Your task to perform on an android device: turn off translation in the chrome app Image 0: 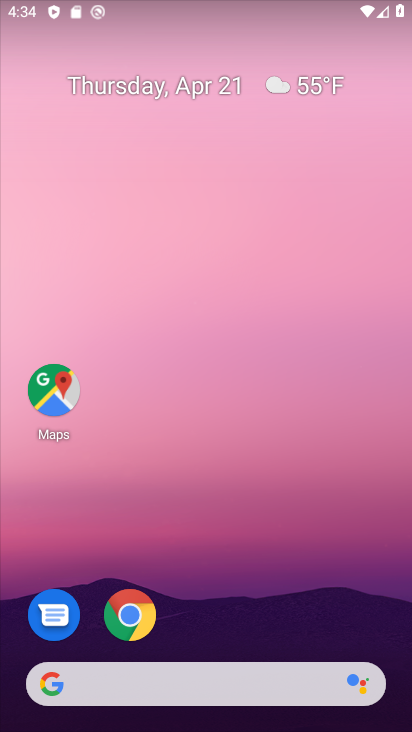
Step 0: drag from (295, 544) to (253, 17)
Your task to perform on an android device: turn off translation in the chrome app Image 1: 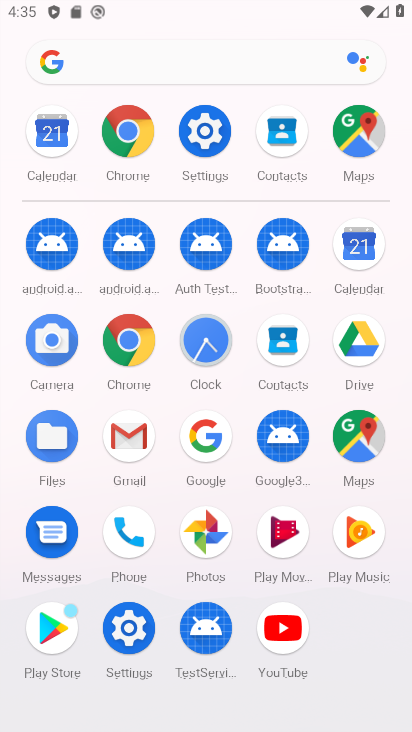
Step 1: drag from (5, 526) to (18, 268)
Your task to perform on an android device: turn off translation in the chrome app Image 2: 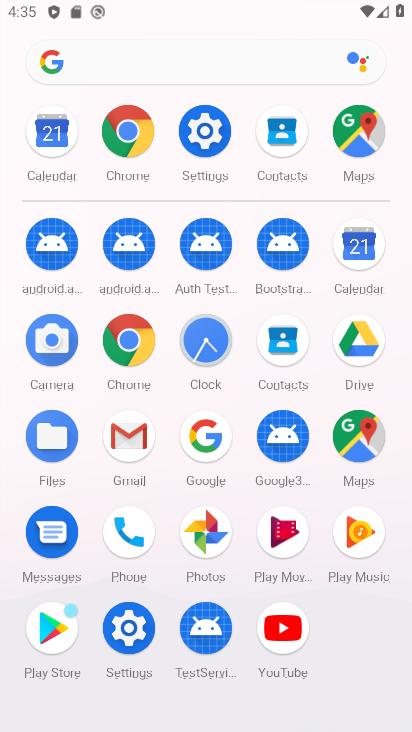
Step 2: click (129, 132)
Your task to perform on an android device: turn off translation in the chrome app Image 3: 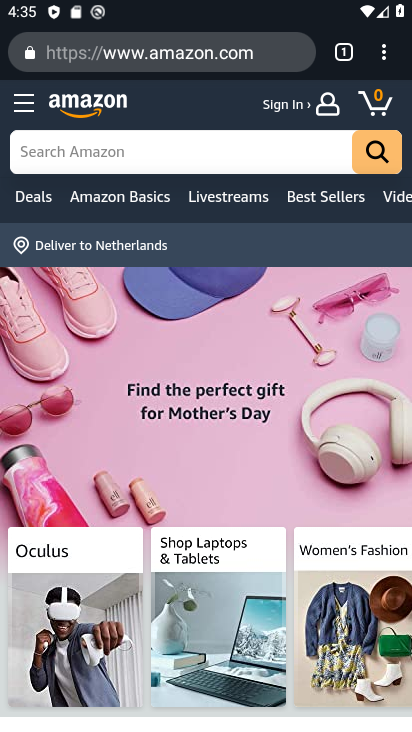
Step 3: drag from (388, 56) to (219, 643)
Your task to perform on an android device: turn off translation in the chrome app Image 4: 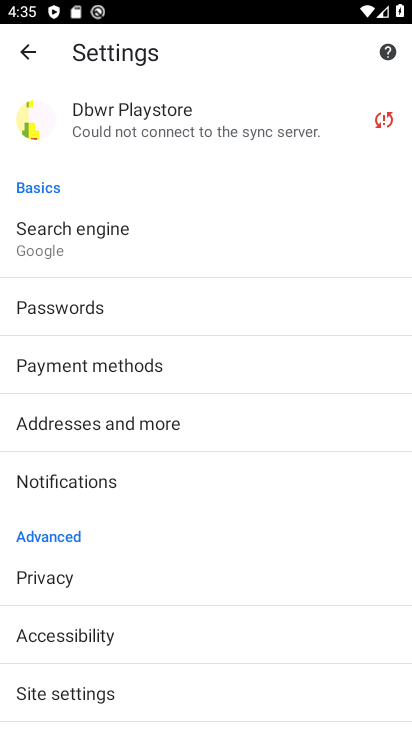
Step 4: drag from (245, 612) to (256, 269)
Your task to perform on an android device: turn off translation in the chrome app Image 5: 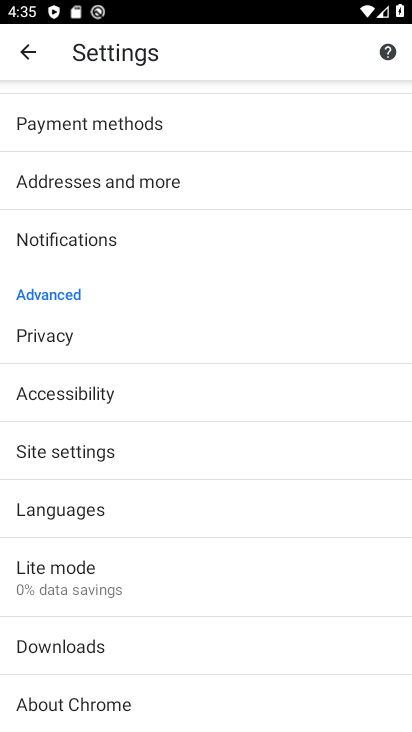
Step 5: click (112, 501)
Your task to perform on an android device: turn off translation in the chrome app Image 6: 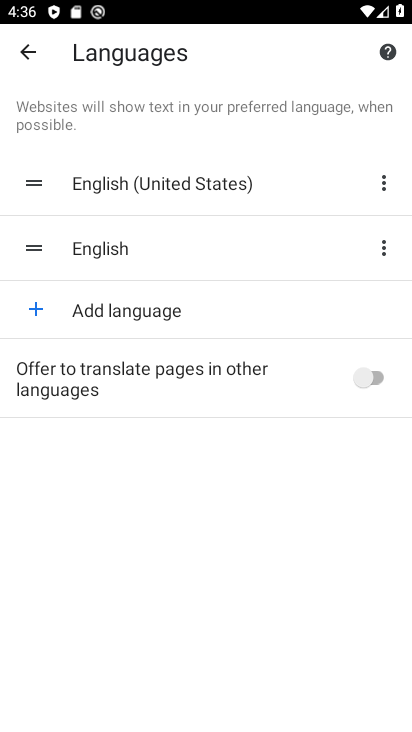
Step 6: task complete